Your task to perform on an android device: Open internet settings Image 0: 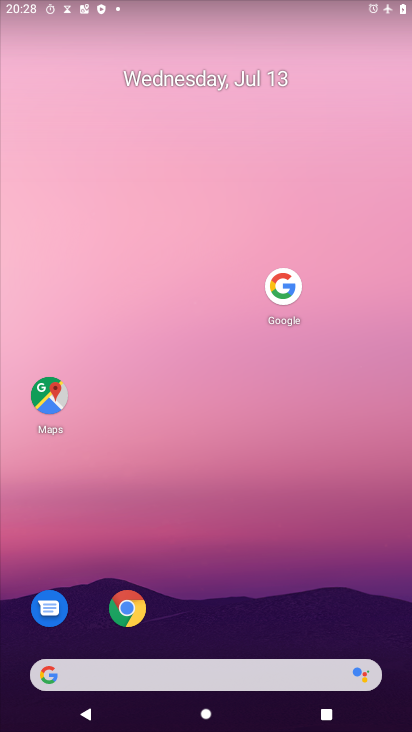
Step 0: drag from (179, 637) to (182, 50)
Your task to perform on an android device: Open internet settings Image 1: 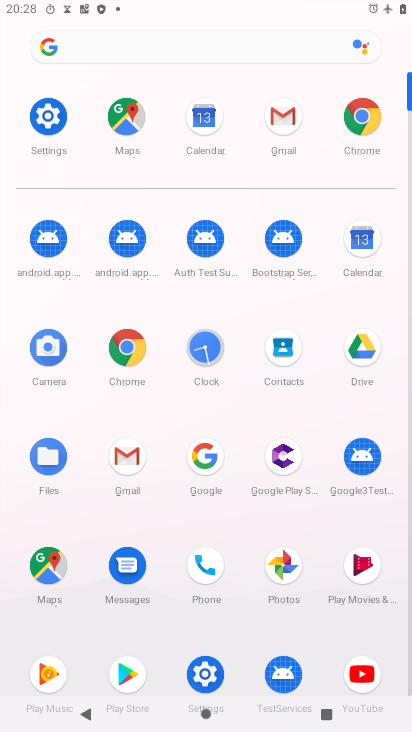
Step 1: click (46, 114)
Your task to perform on an android device: Open internet settings Image 2: 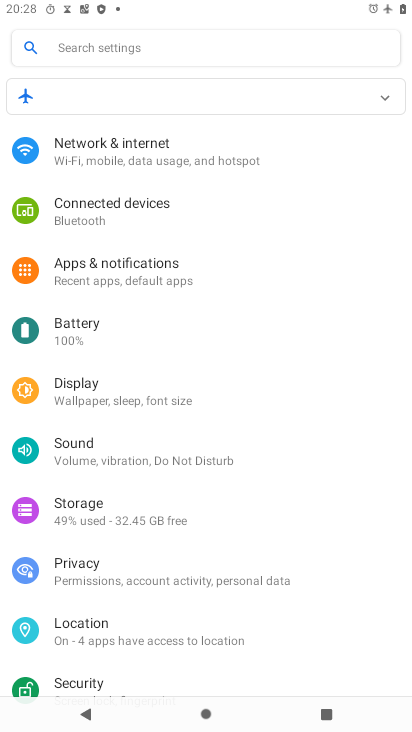
Step 2: click (83, 140)
Your task to perform on an android device: Open internet settings Image 3: 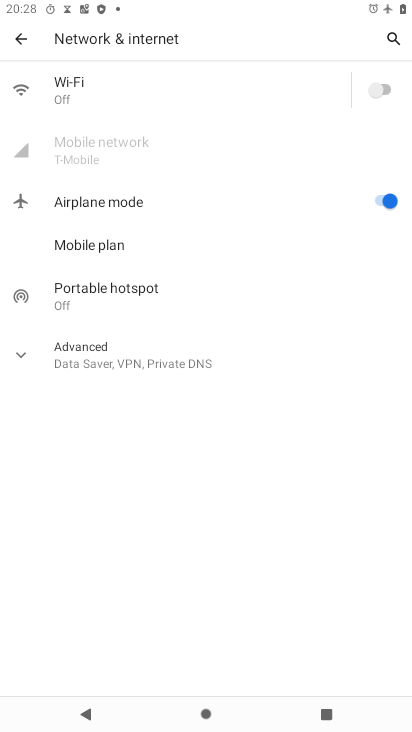
Step 3: click (124, 355)
Your task to perform on an android device: Open internet settings Image 4: 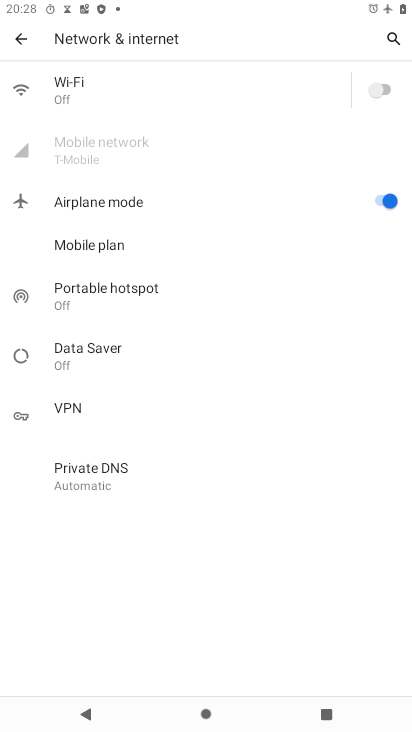
Step 4: task complete